Your task to perform on an android device: turn notification dots on Image 0: 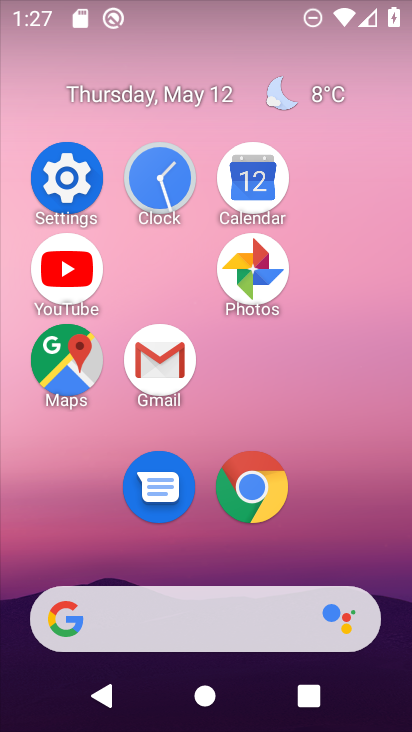
Step 0: click (85, 191)
Your task to perform on an android device: turn notification dots on Image 1: 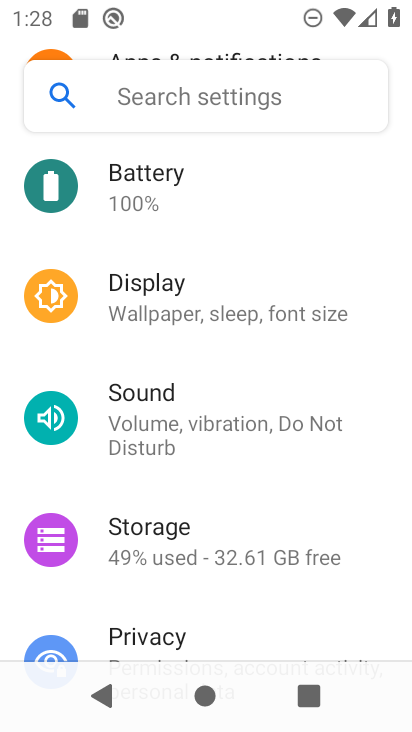
Step 1: drag from (280, 221) to (280, 552)
Your task to perform on an android device: turn notification dots on Image 2: 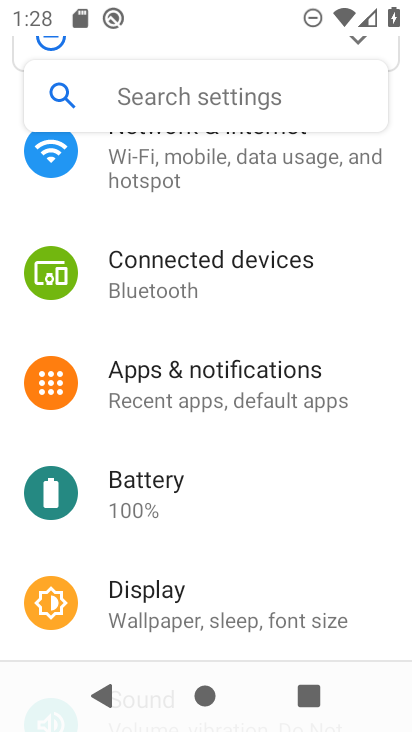
Step 2: click (238, 389)
Your task to perform on an android device: turn notification dots on Image 3: 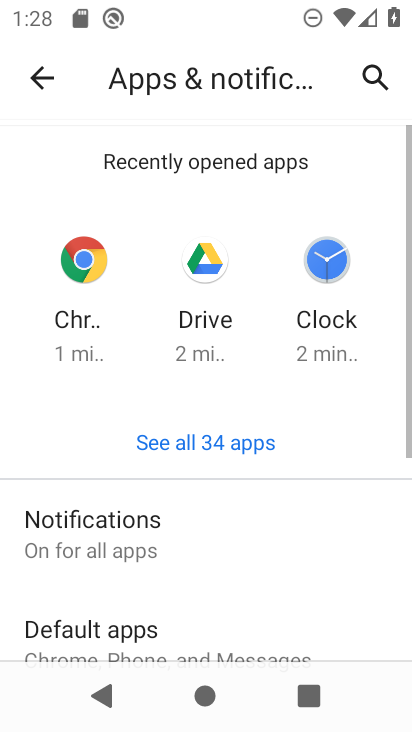
Step 3: click (172, 543)
Your task to perform on an android device: turn notification dots on Image 4: 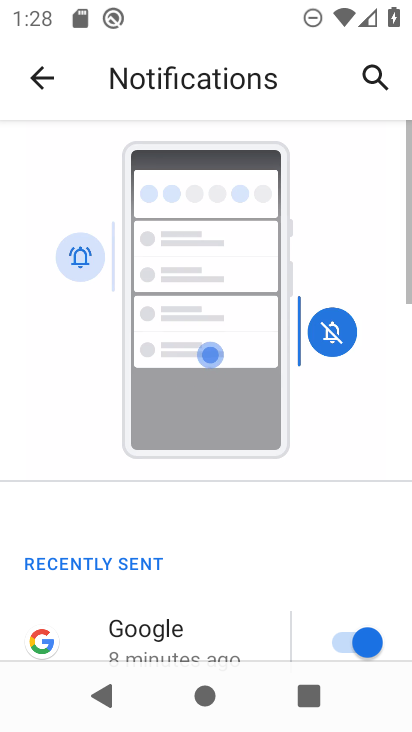
Step 4: drag from (247, 605) to (234, 85)
Your task to perform on an android device: turn notification dots on Image 5: 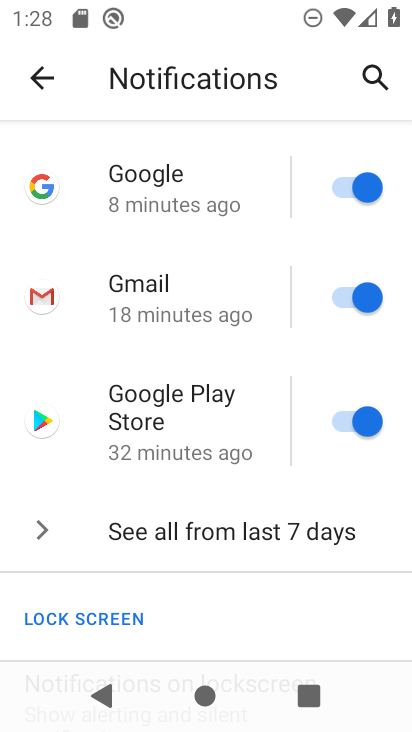
Step 5: drag from (234, 585) to (207, 132)
Your task to perform on an android device: turn notification dots on Image 6: 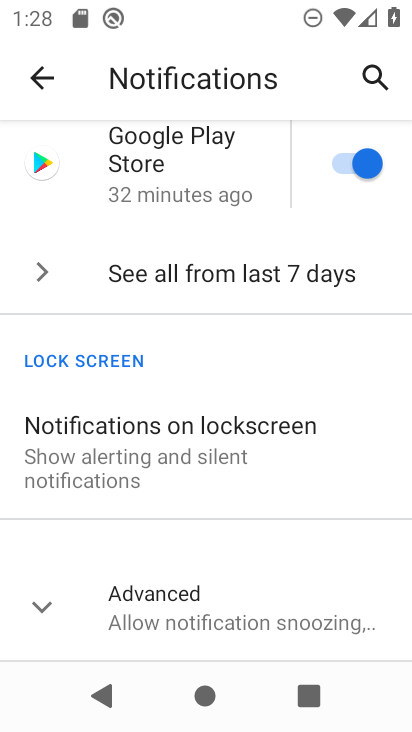
Step 6: click (188, 600)
Your task to perform on an android device: turn notification dots on Image 7: 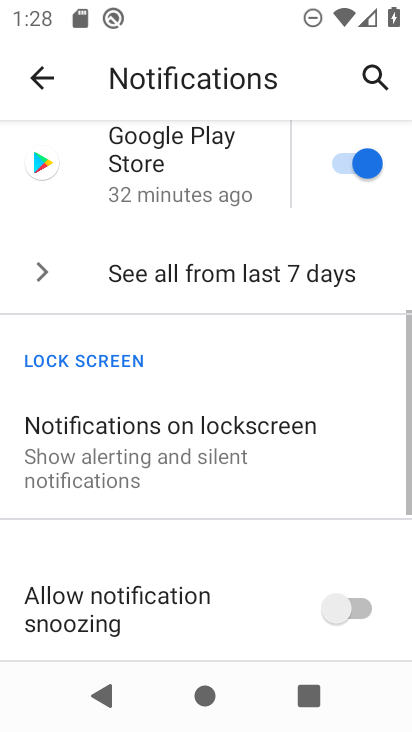
Step 7: task complete